Your task to perform on an android device: Search for Italian restaurants on Maps Image 0: 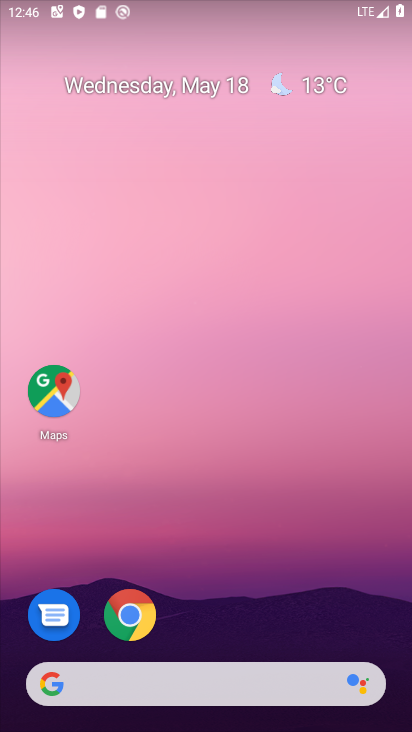
Step 0: click (61, 398)
Your task to perform on an android device: Search for Italian restaurants on Maps Image 1: 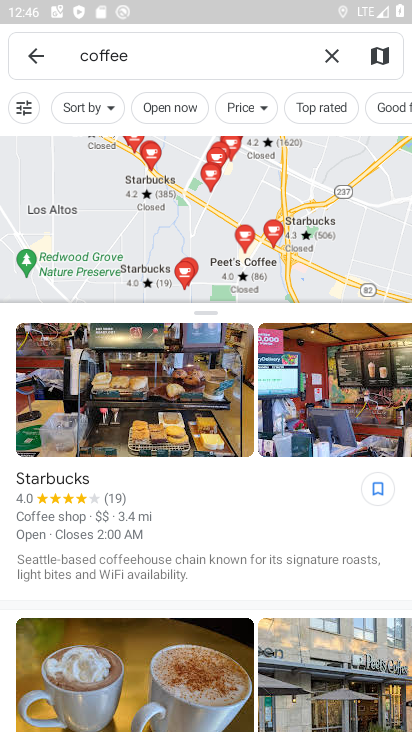
Step 1: click (332, 57)
Your task to perform on an android device: Search for Italian restaurants on Maps Image 2: 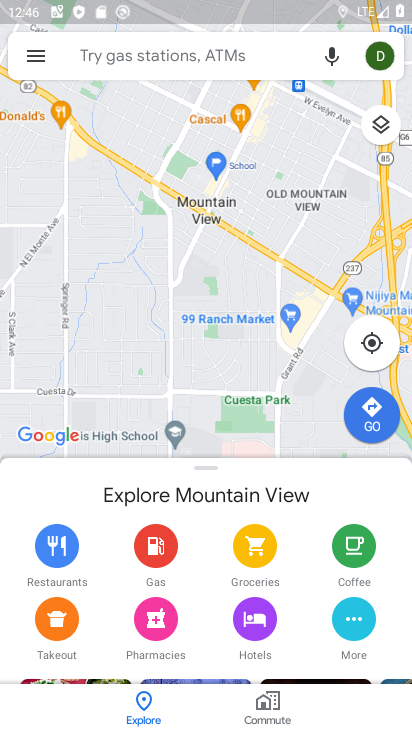
Step 2: click (211, 61)
Your task to perform on an android device: Search for Italian restaurants on Maps Image 3: 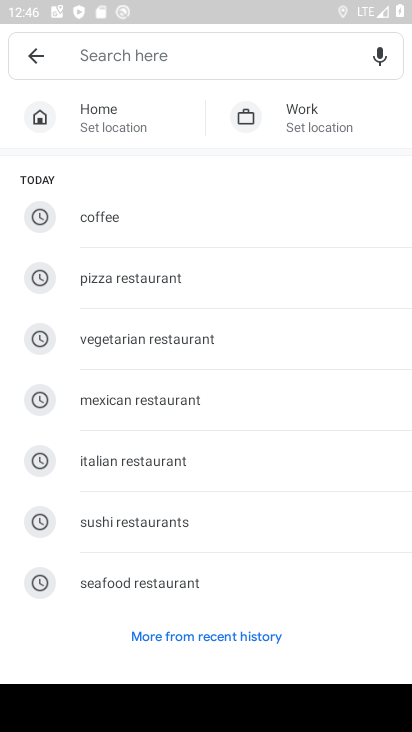
Step 3: click (121, 447)
Your task to perform on an android device: Search for Italian restaurants on Maps Image 4: 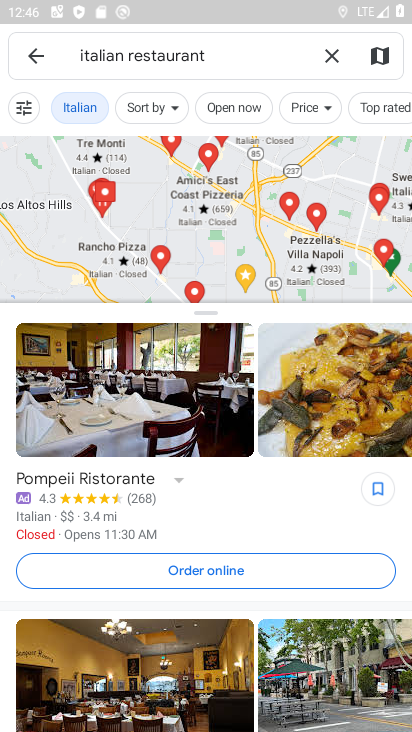
Step 4: task complete